Your task to perform on an android device: Go to Android settings Image 0: 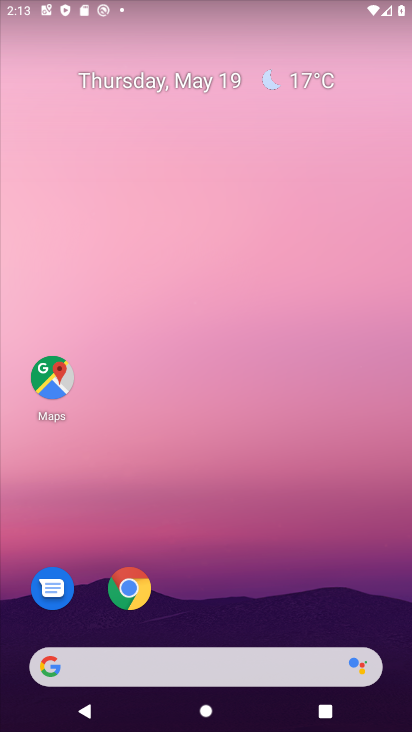
Step 0: drag from (237, 604) to (268, 125)
Your task to perform on an android device: Go to Android settings Image 1: 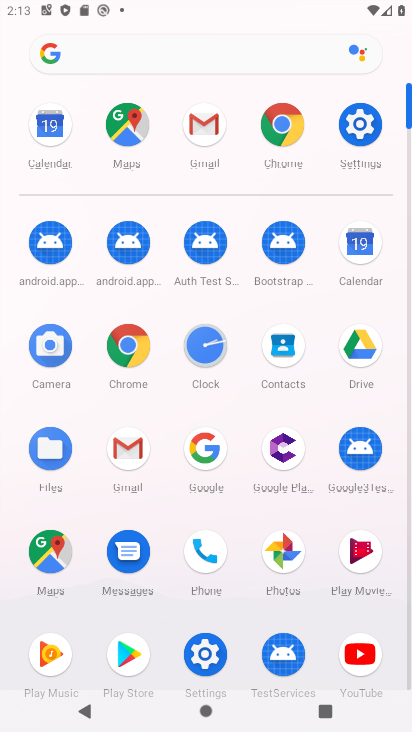
Step 1: click (366, 133)
Your task to perform on an android device: Go to Android settings Image 2: 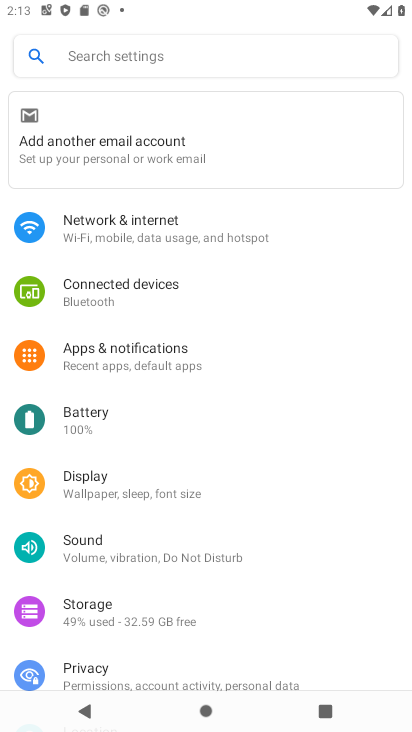
Step 2: task complete